Your task to perform on an android device: change alarm snooze length Image 0: 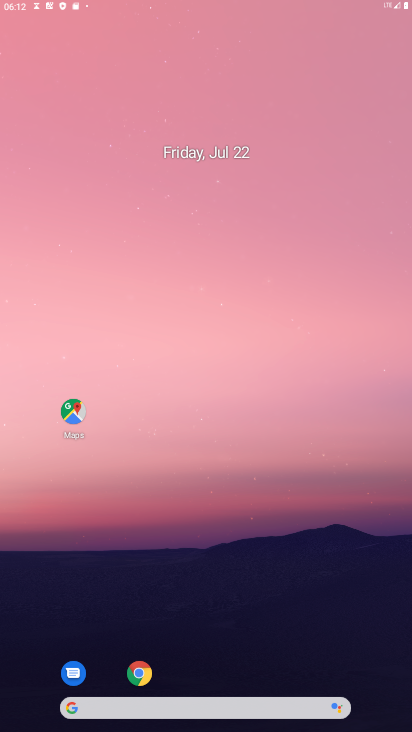
Step 0: press home button
Your task to perform on an android device: change alarm snooze length Image 1: 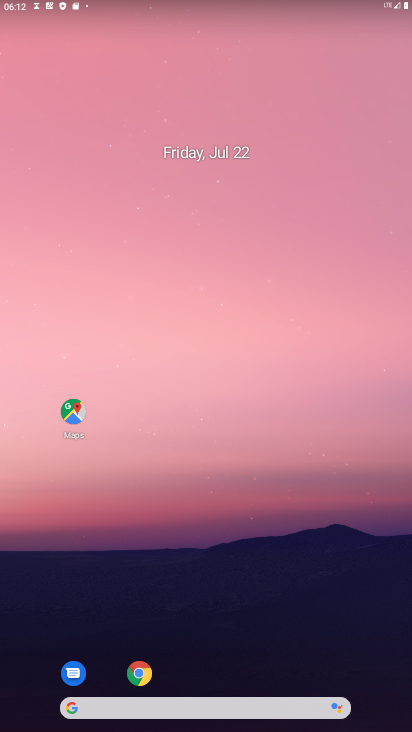
Step 1: drag from (284, 610) to (266, 0)
Your task to perform on an android device: change alarm snooze length Image 2: 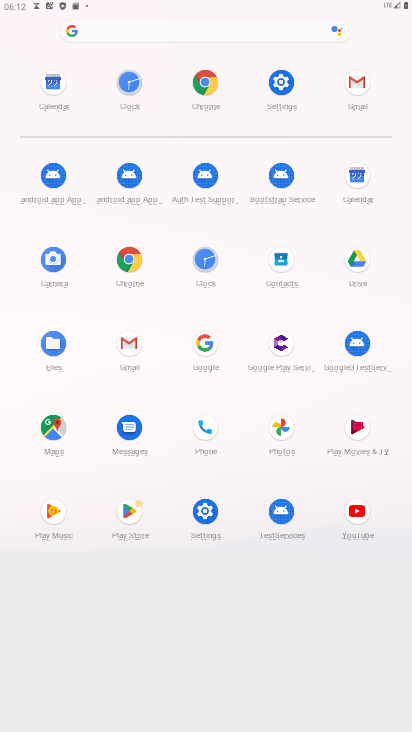
Step 2: click (198, 264)
Your task to perform on an android device: change alarm snooze length Image 3: 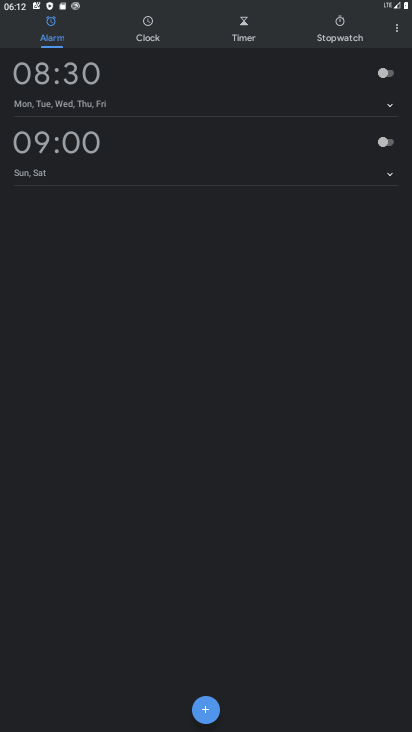
Step 3: click (403, 37)
Your task to perform on an android device: change alarm snooze length Image 4: 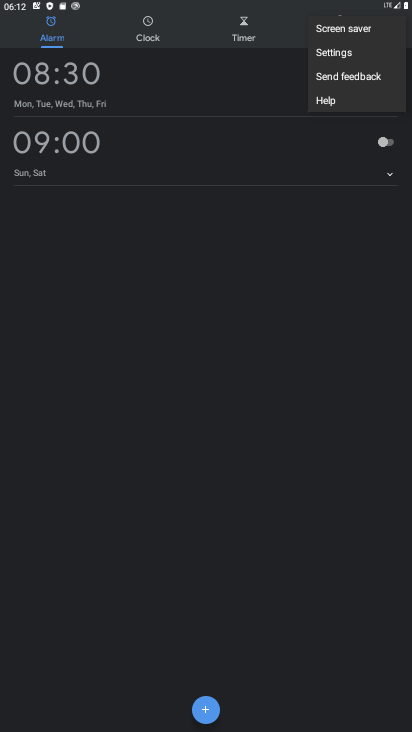
Step 4: click (332, 51)
Your task to perform on an android device: change alarm snooze length Image 5: 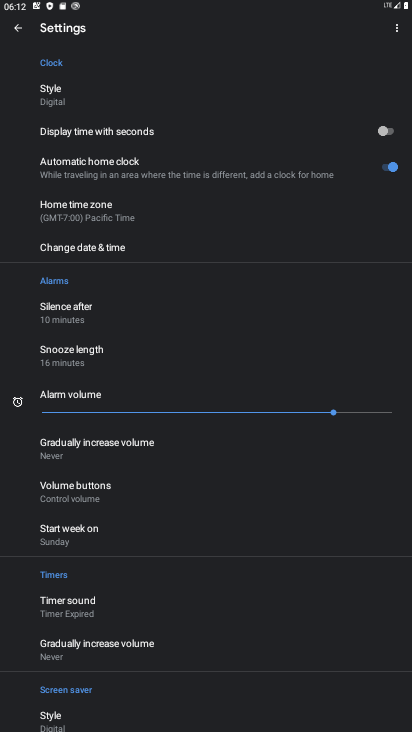
Step 5: click (60, 360)
Your task to perform on an android device: change alarm snooze length Image 6: 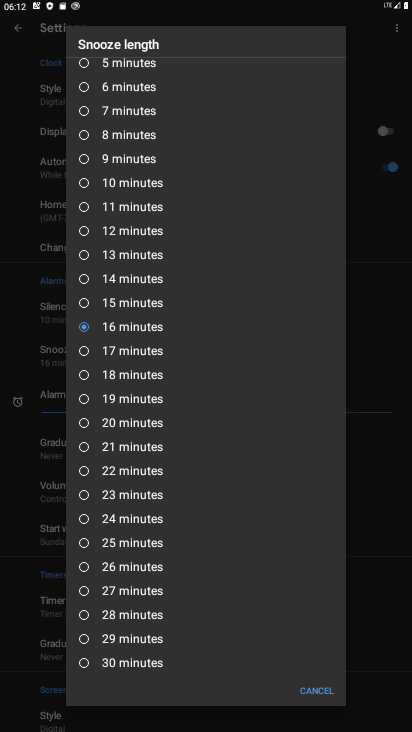
Step 6: click (82, 305)
Your task to perform on an android device: change alarm snooze length Image 7: 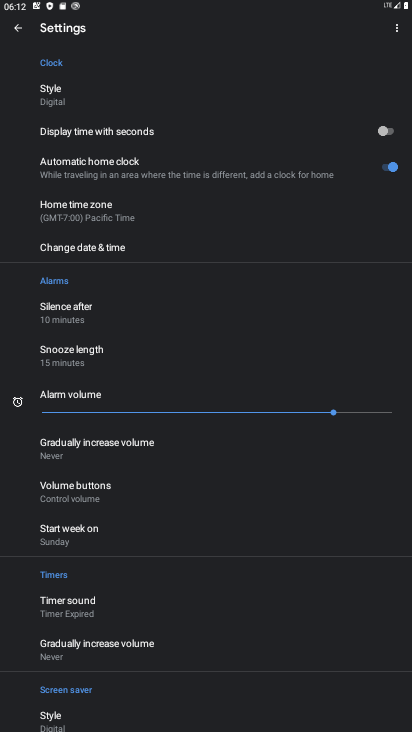
Step 7: task complete